Your task to perform on an android device: Turn off the flashlight Image 0: 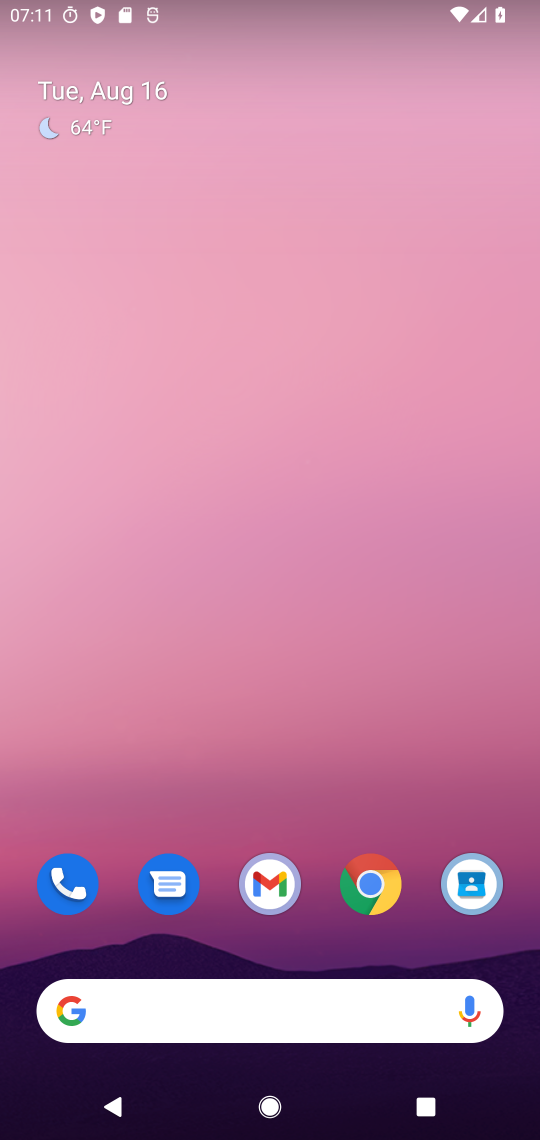
Step 0: press home button
Your task to perform on an android device: Turn off the flashlight Image 1: 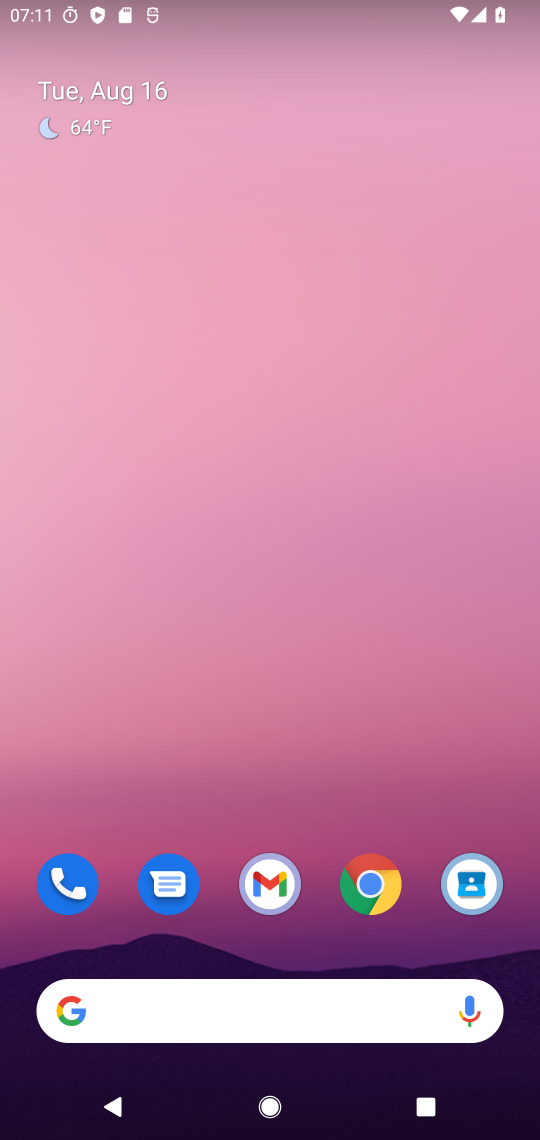
Step 1: press home button
Your task to perform on an android device: Turn off the flashlight Image 2: 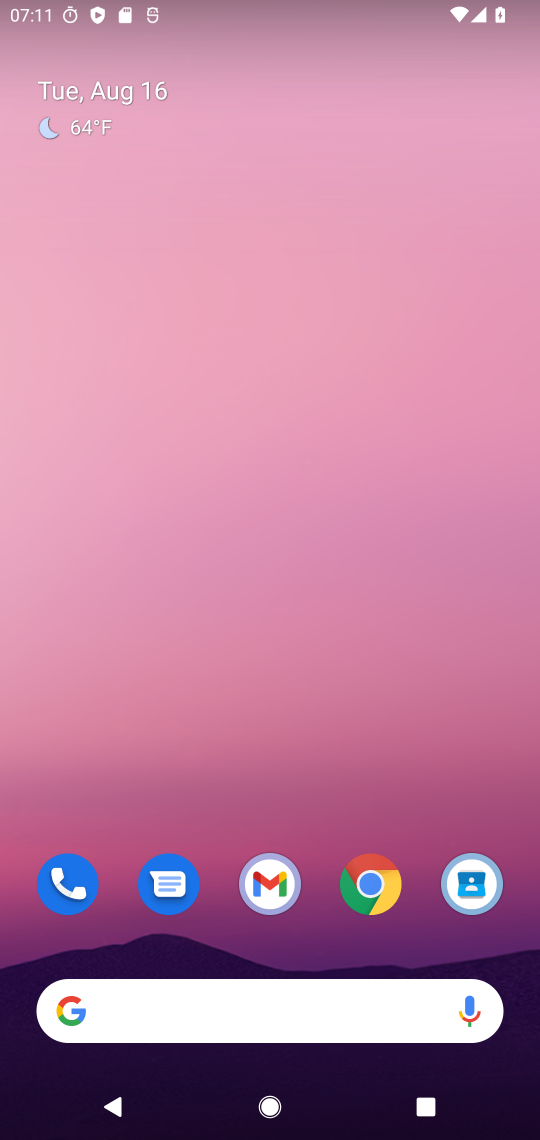
Step 2: click (330, 813)
Your task to perform on an android device: Turn off the flashlight Image 3: 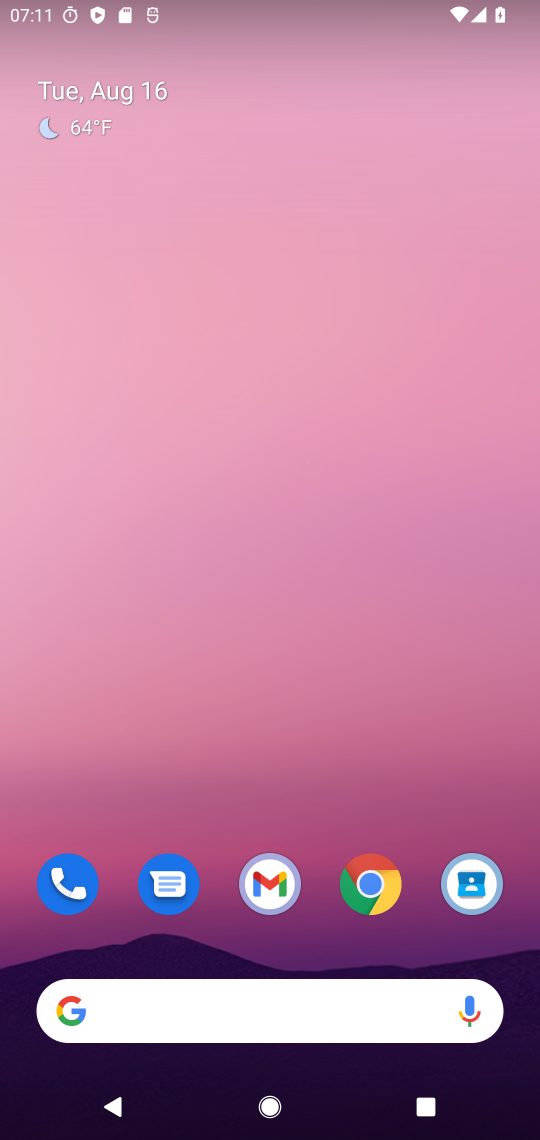
Step 3: task complete